Your task to perform on an android device: open chrome and create a bookmark for the current page Image 0: 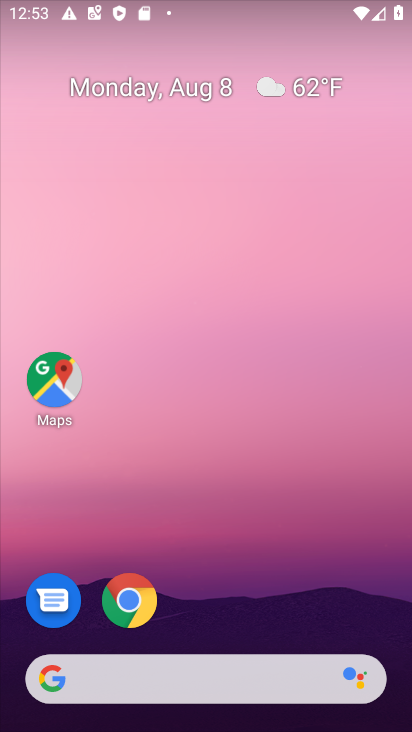
Step 0: click (141, 610)
Your task to perform on an android device: open chrome and create a bookmark for the current page Image 1: 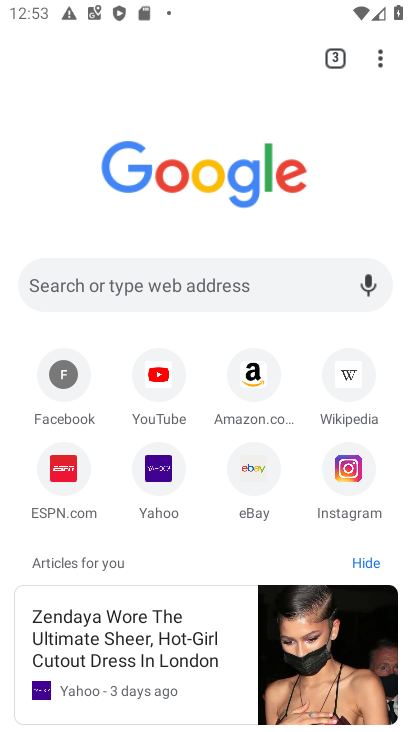
Step 1: click (381, 56)
Your task to perform on an android device: open chrome and create a bookmark for the current page Image 2: 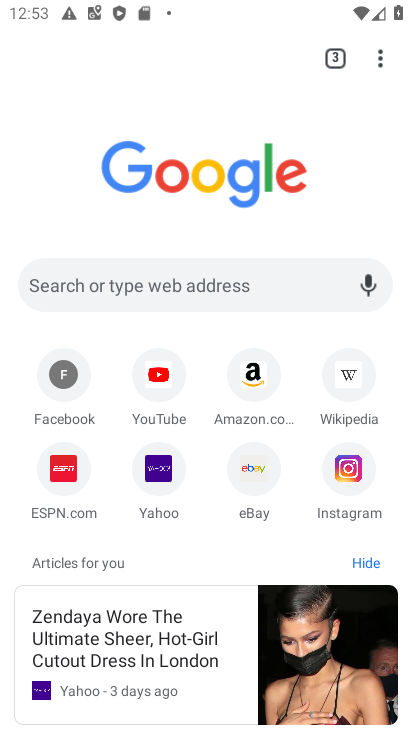
Step 2: click (54, 149)
Your task to perform on an android device: open chrome and create a bookmark for the current page Image 3: 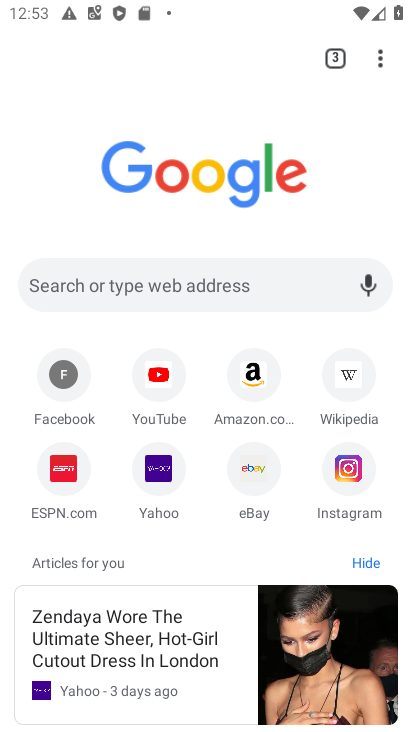
Step 3: drag from (155, 574) to (212, 170)
Your task to perform on an android device: open chrome and create a bookmark for the current page Image 4: 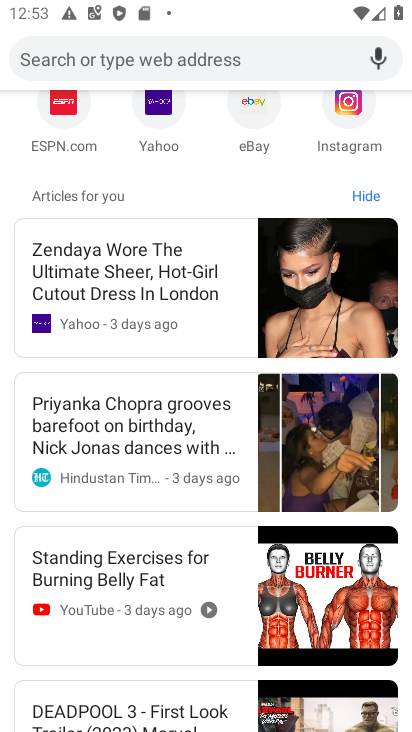
Step 4: drag from (173, 567) to (192, 171)
Your task to perform on an android device: open chrome and create a bookmark for the current page Image 5: 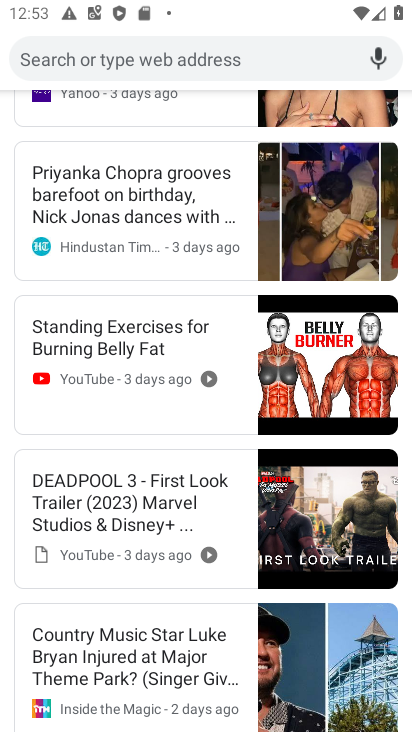
Step 5: click (193, 534)
Your task to perform on an android device: open chrome and create a bookmark for the current page Image 6: 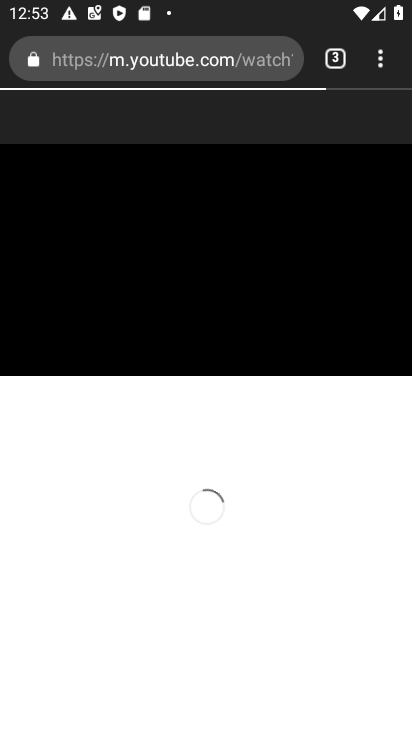
Step 6: click (378, 69)
Your task to perform on an android device: open chrome and create a bookmark for the current page Image 7: 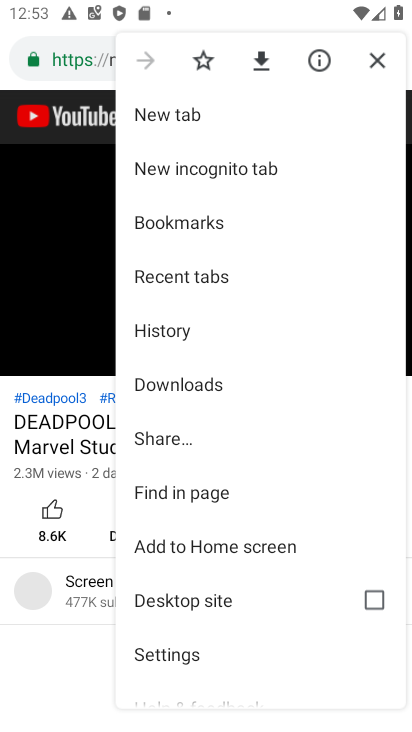
Step 7: click (202, 62)
Your task to perform on an android device: open chrome and create a bookmark for the current page Image 8: 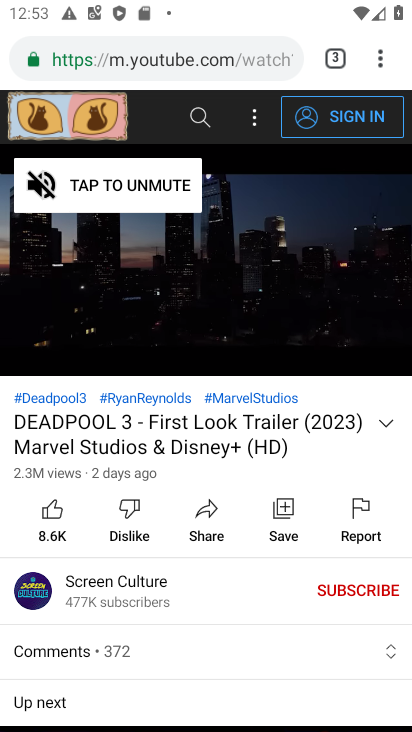
Step 8: task complete